Your task to perform on an android device: turn off data saver in the chrome app Image 0: 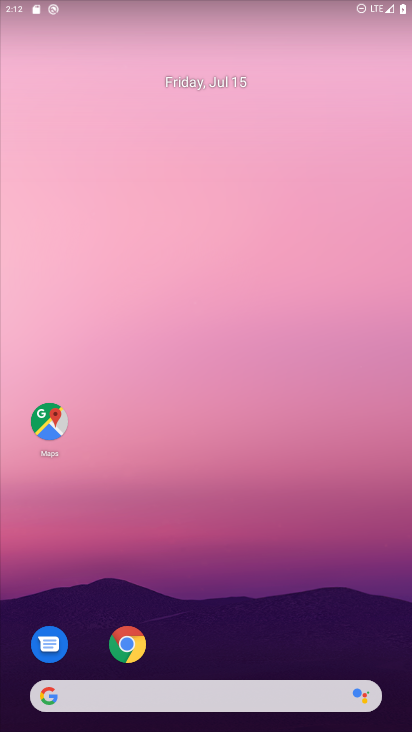
Step 0: press home button
Your task to perform on an android device: turn off data saver in the chrome app Image 1: 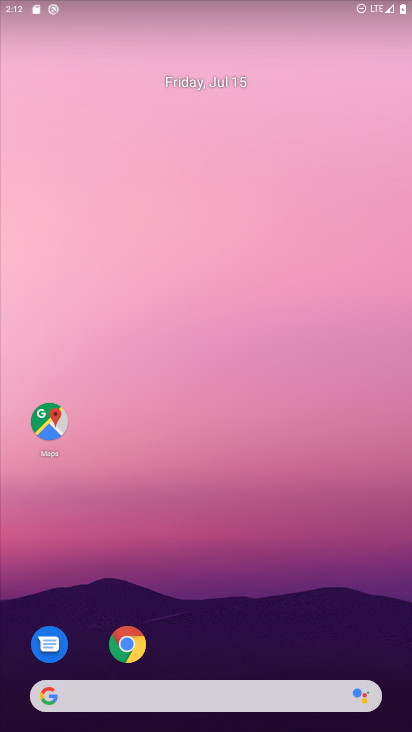
Step 1: click (142, 642)
Your task to perform on an android device: turn off data saver in the chrome app Image 2: 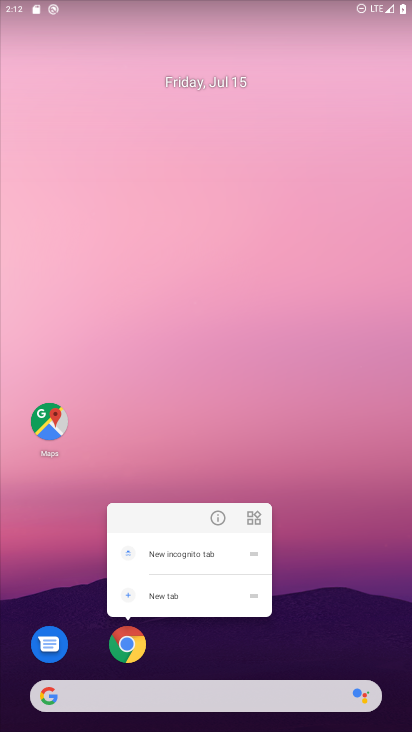
Step 2: click (120, 642)
Your task to perform on an android device: turn off data saver in the chrome app Image 3: 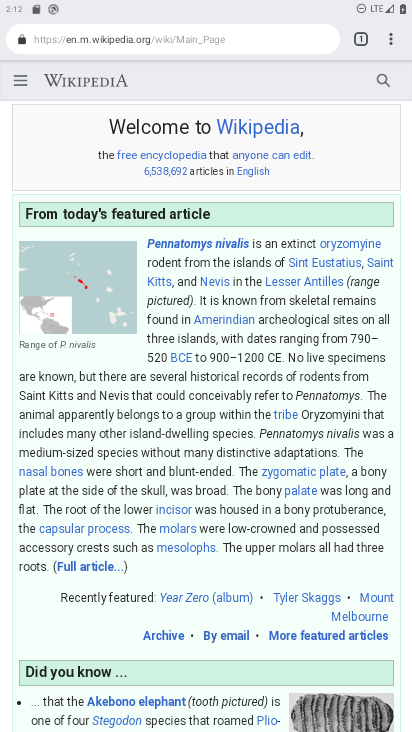
Step 3: click (360, 37)
Your task to perform on an android device: turn off data saver in the chrome app Image 4: 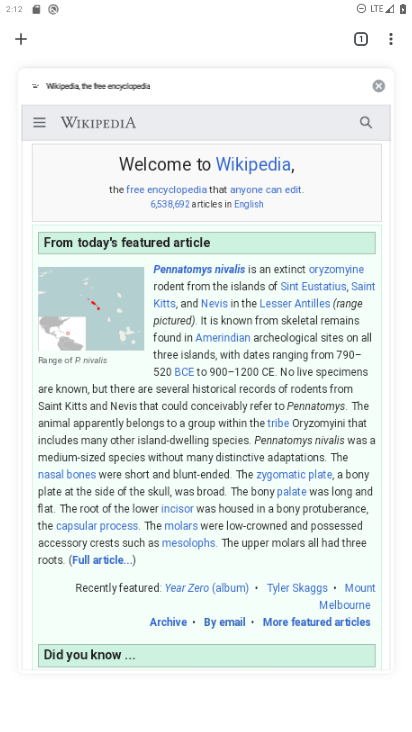
Step 4: click (383, 85)
Your task to perform on an android device: turn off data saver in the chrome app Image 5: 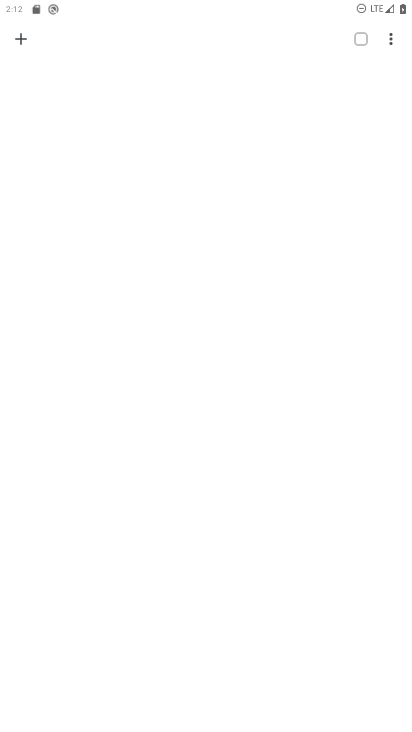
Step 5: press home button
Your task to perform on an android device: turn off data saver in the chrome app Image 6: 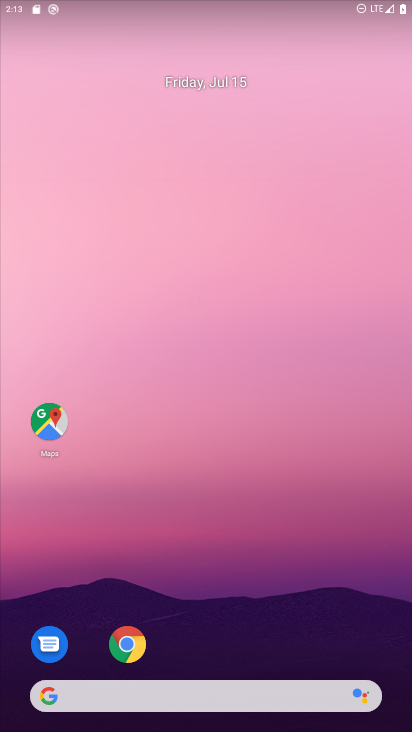
Step 6: click (130, 635)
Your task to perform on an android device: turn off data saver in the chrome app Image 7: 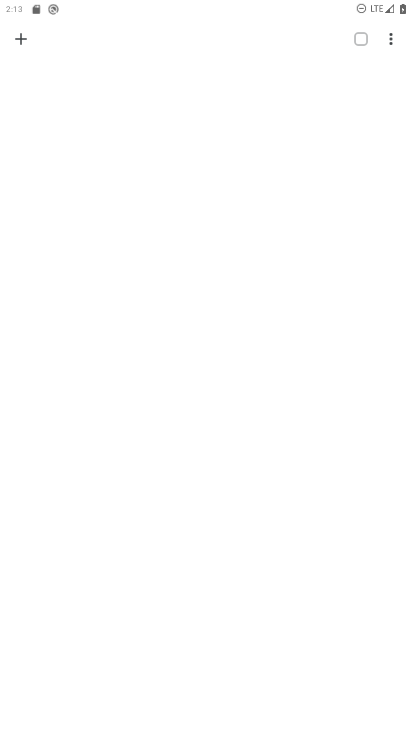
Step 7: click (389, 36)
Your task to perform on an android device: turn off data saver in the chrome app Image 8: 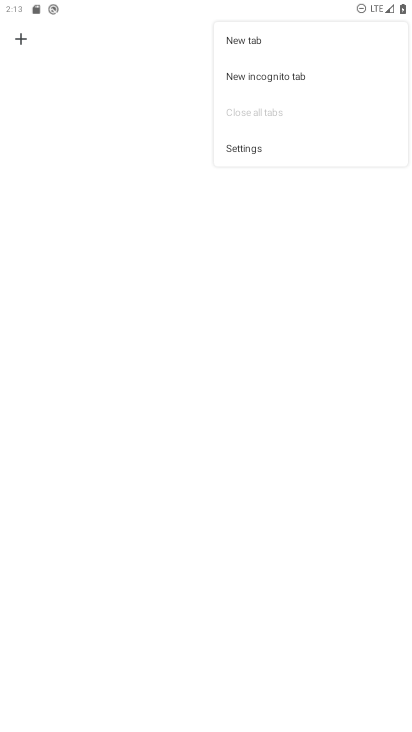
Step 8: click (268, 148)
Your task to perform on an android device: turn off data saver in the chrome app Image 9: 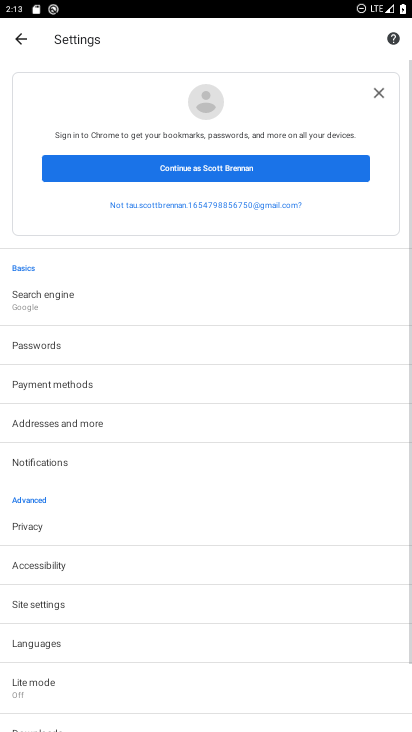
Step 9: drag from (0, 703) to (124, 410)
Your task to perform on an android device: turn off data saver in the chrome app Image 10: 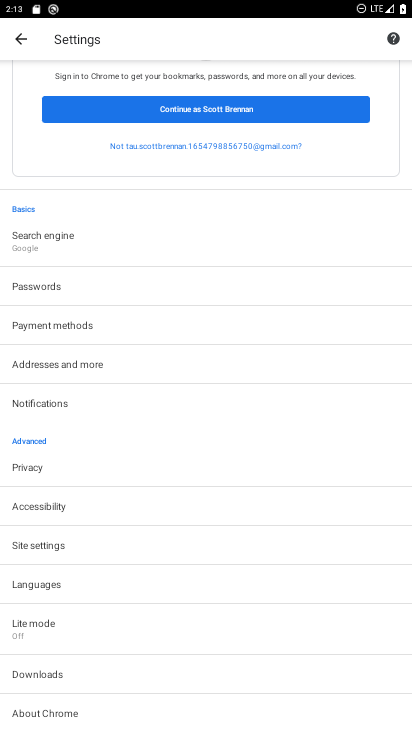
Step 10: click (56, 633)
Your task to perform on an android device: turn off data saver in the chrome app Image 11: 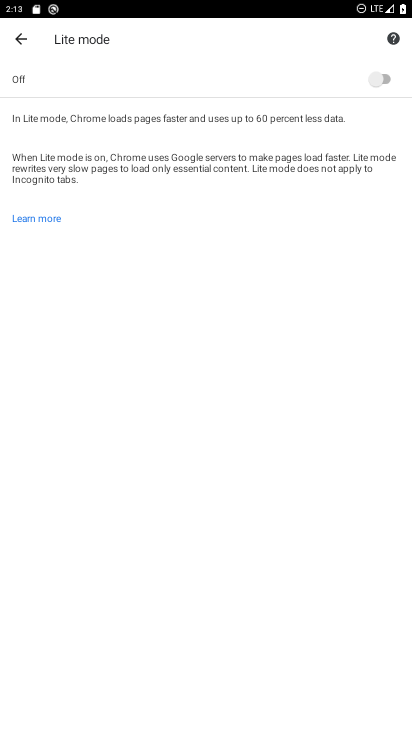
Step 11: task complete